Your task to perform on an android device: Go to Google Image 0: 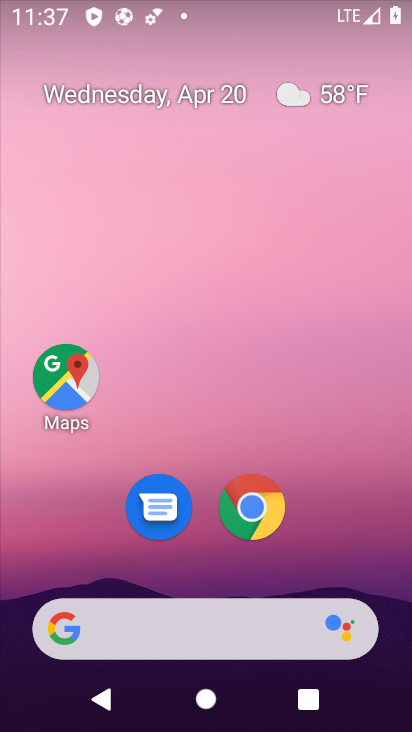
Step 0: drag from (329, 527) to (336, 197)
Your task to perform on an android device: Go to Google Image 1: 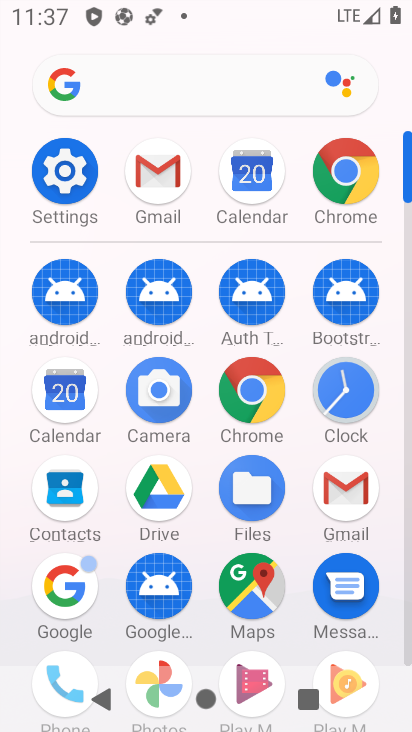
Step 1: click (74, 598)
Your task to perform on an android device: Go to Google Image 2: 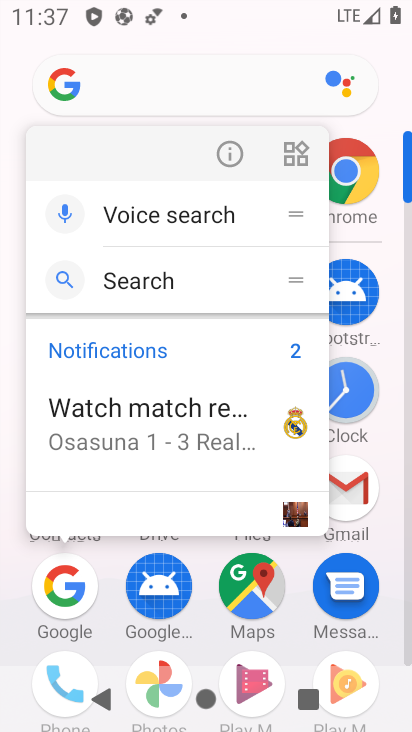
Step 2: click (71, 600)
Your task to perform on an android device: Go to Google Image 3: 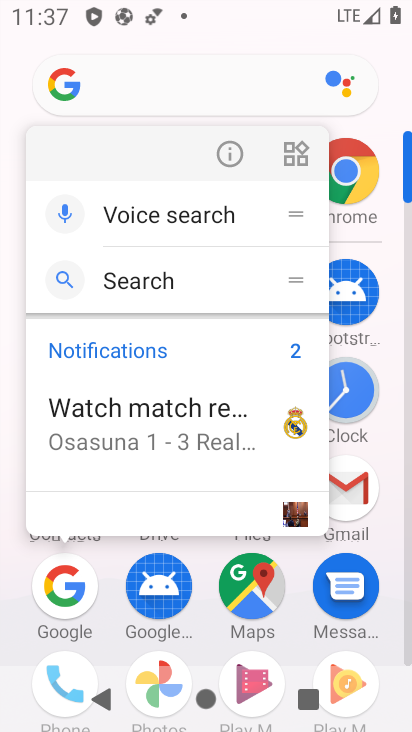
Step 3: click (73, 596)
Your task to perform on an android device: Go to Google Image 4: 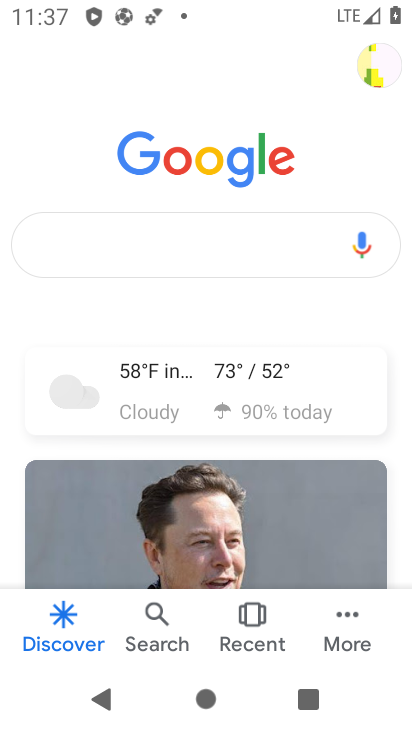
Step 4: task complete